Your task to perform on an android device: Show me the alarms in the clock app Image 0: 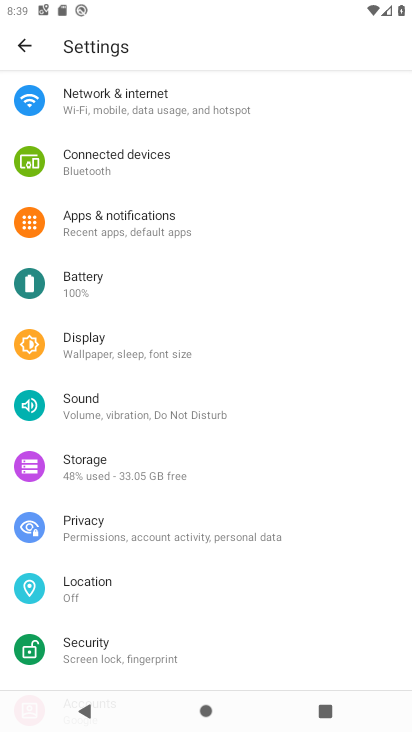
Step 0: press home button
Your task to perform on an android device: Show me the alarms in the clock app Image 1: 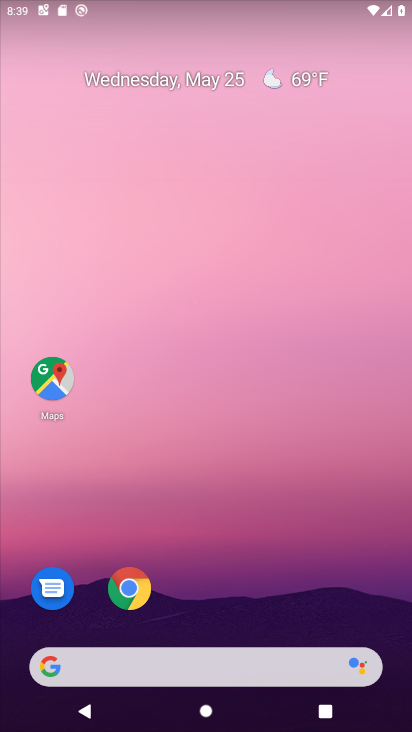
Step 1: drag from (375, 614) to (387, 248)
Your task to perform on an android device: Show me the alarms in the clock app Image 2: 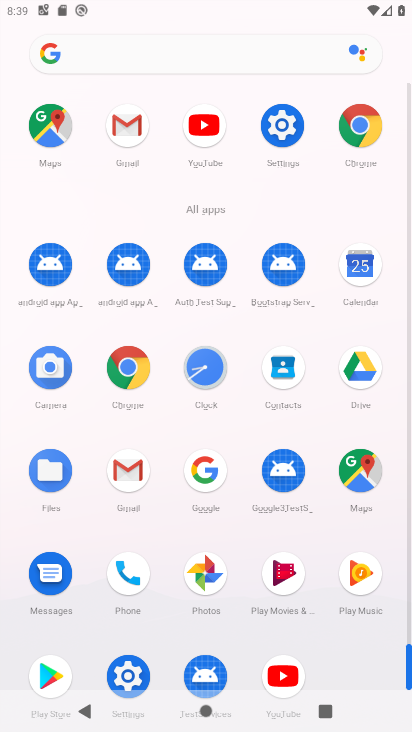
Step 2: click (192, 371)
Your task to perform on an android device: Show me the alarms in the clock app Image 3: 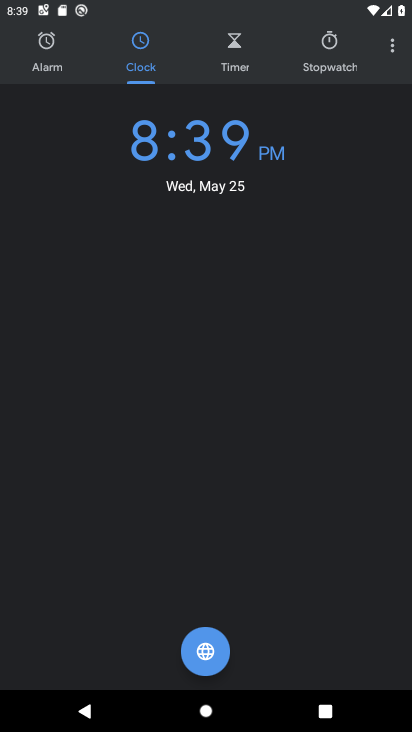
Step 3: click (52, 31)
Your task to perform on an android device: Show me the alarms in the clock app Image 4: 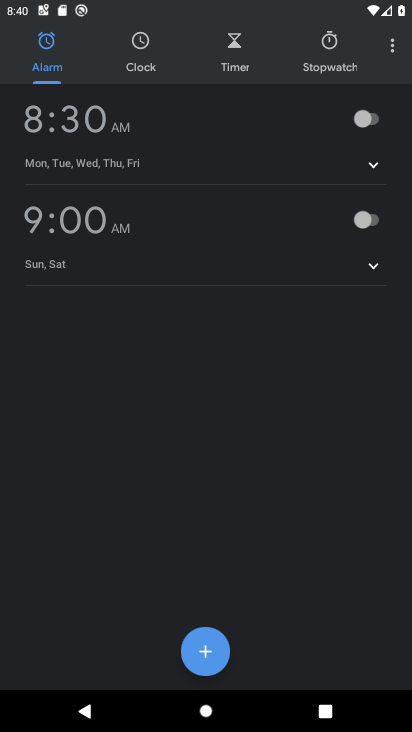
Step 4: task complete